Your task to perform on an android device: open app "The Home Depot" (install if not already installed) and go to login screen Image 0: 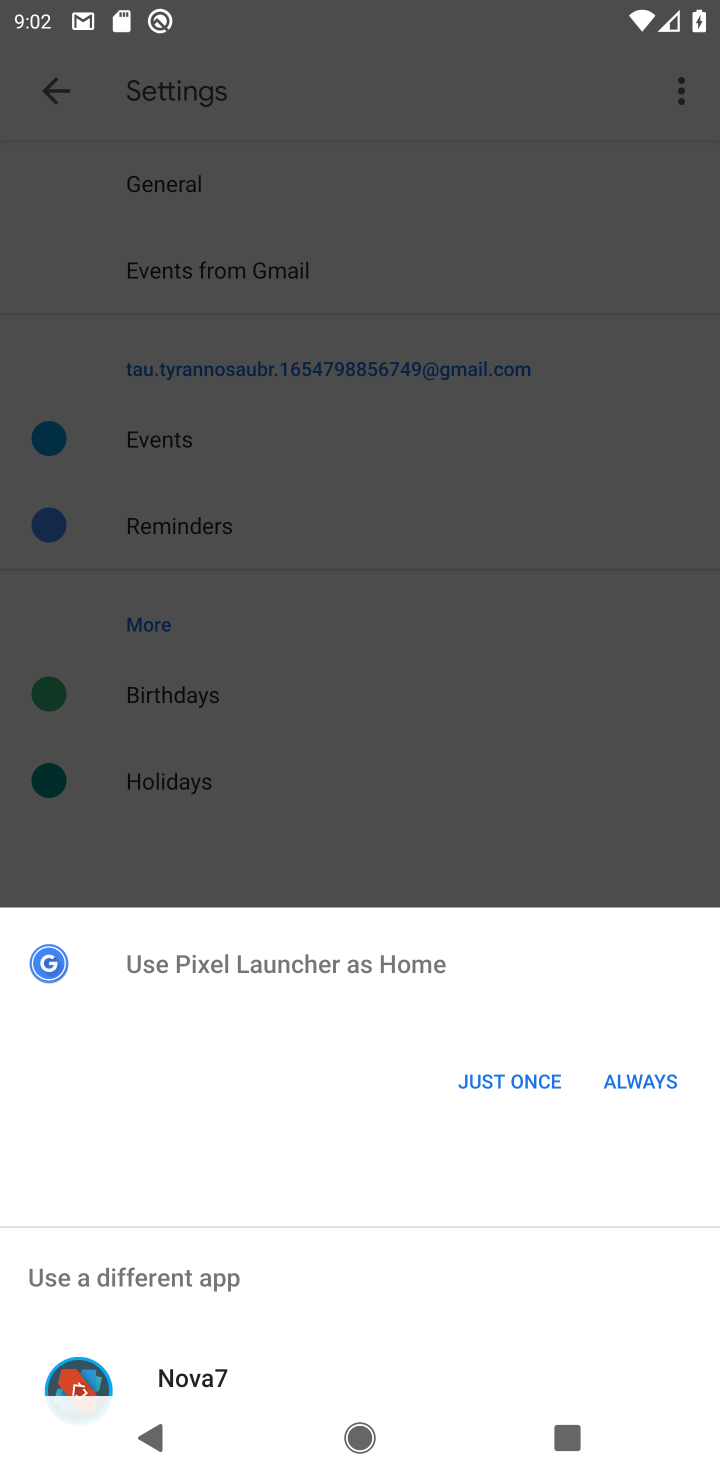
Step 0: press home button
Your task to perform on an android device: open app "The Home Depot" (install if not already installed) and go to login screen Image 1: 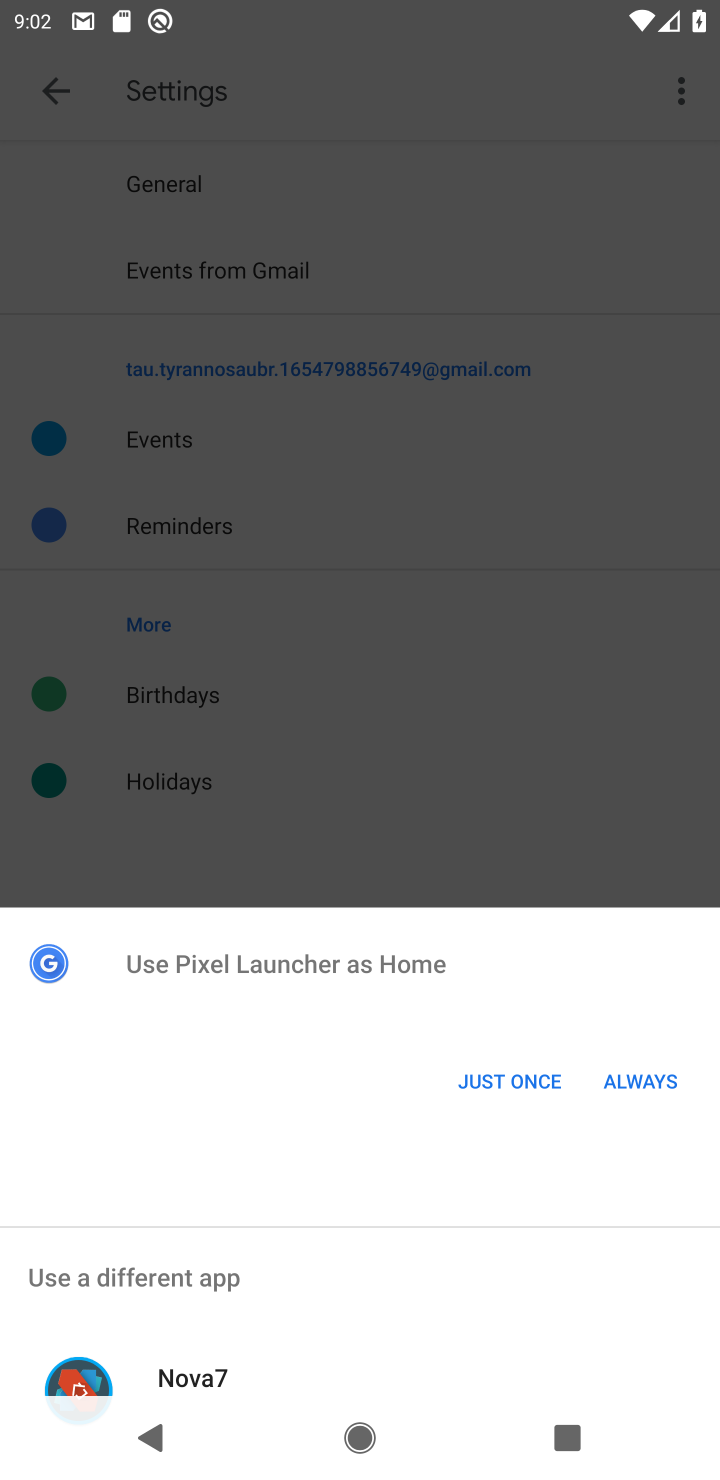
Step 1: press home button
Your task to perform on an android device: open app "The Home Depot" (install if not already installed) and go to login screen Image 2: 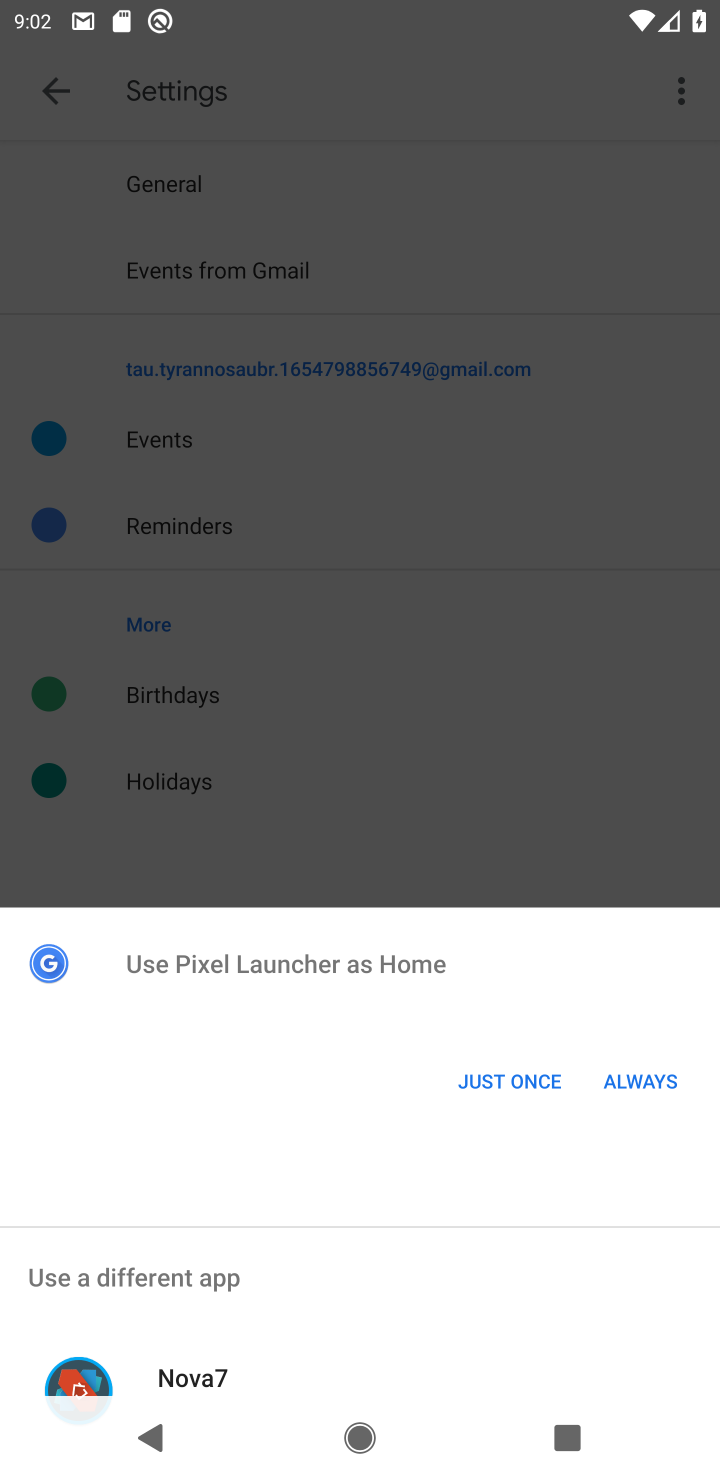
Step 2: press back button
Your task to perform on an android device: open app "The Home Depot" (install if not already installed) and go to login screen Image 3: 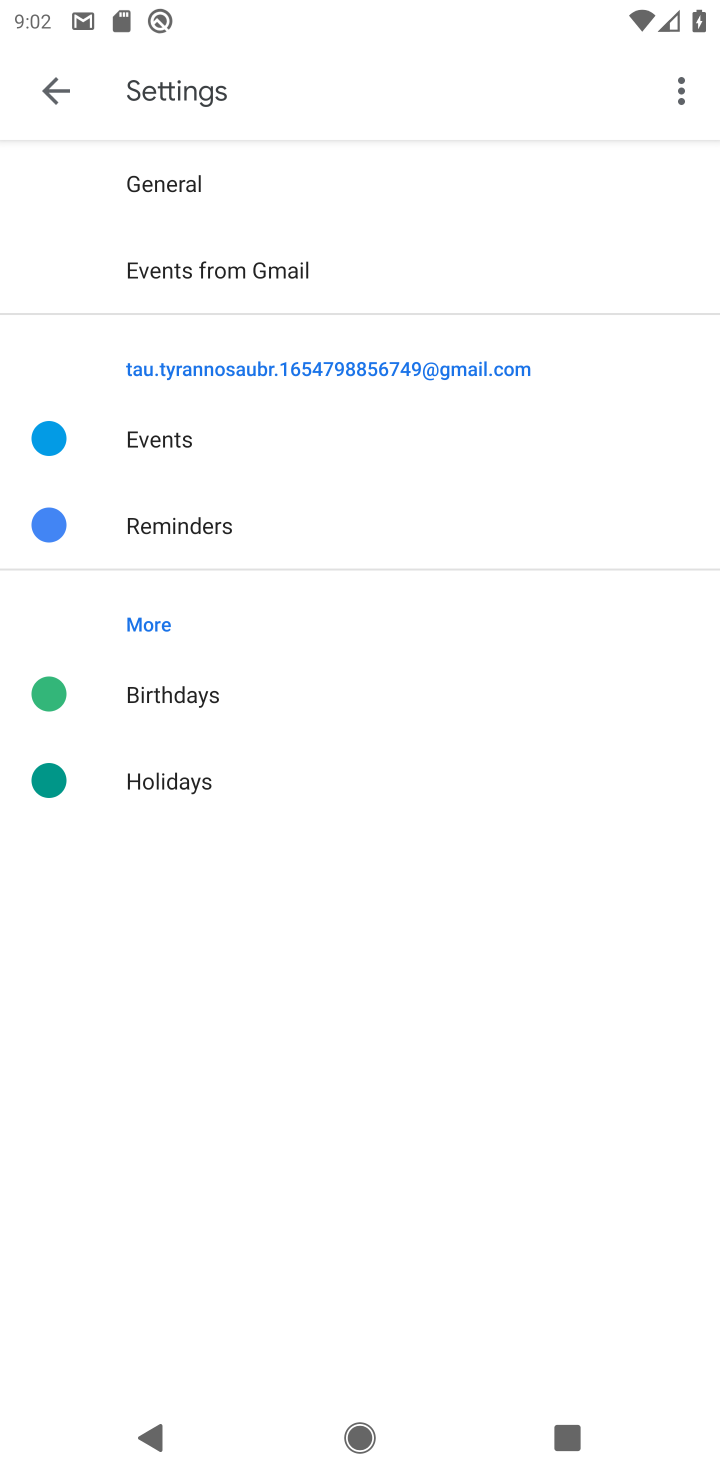
Step 3: press back button
Your task to perform on an android device: open app "The Home Depot" (install if not already installed) and go to login screen Image 4: 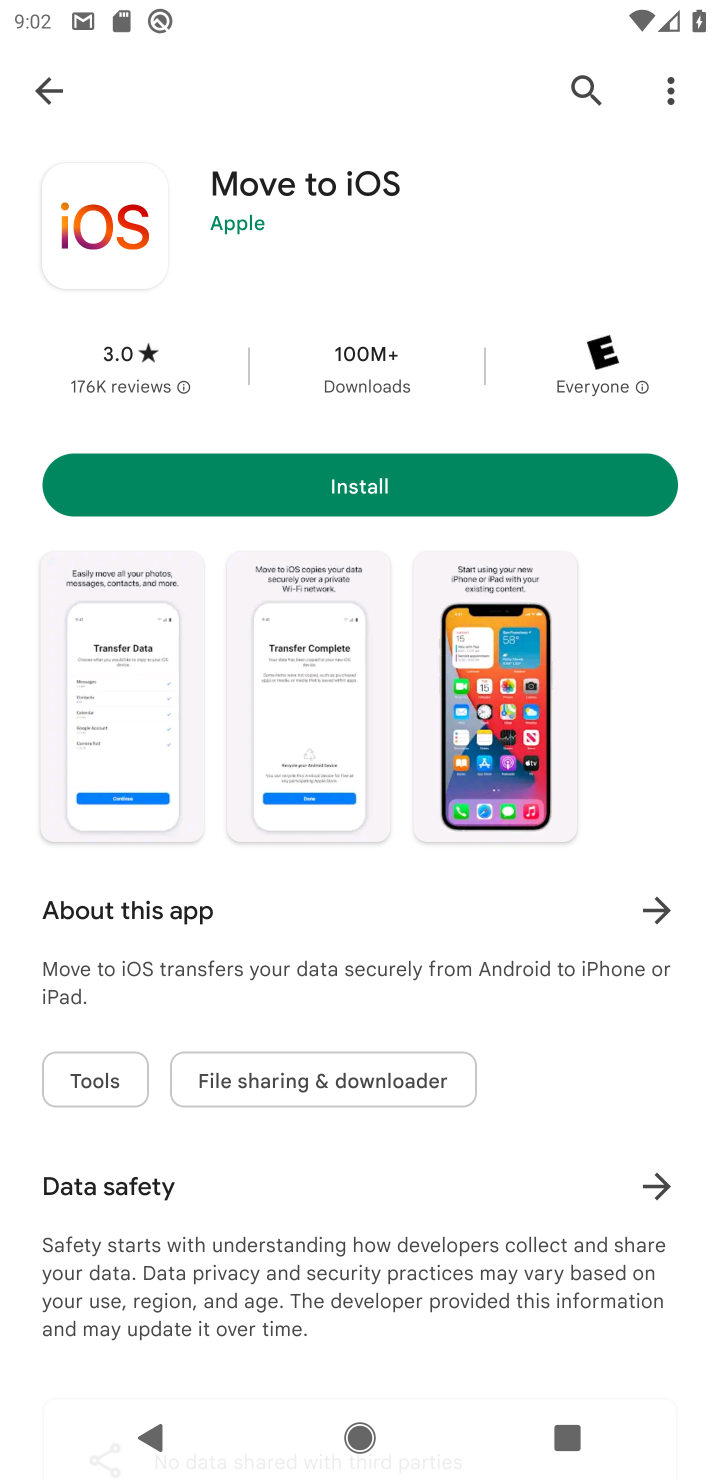
Step 4: click (582, 70)
Your task to perform on an android device: open app "The Home Depot" (install if not already installed) and go to login screen Image 5: 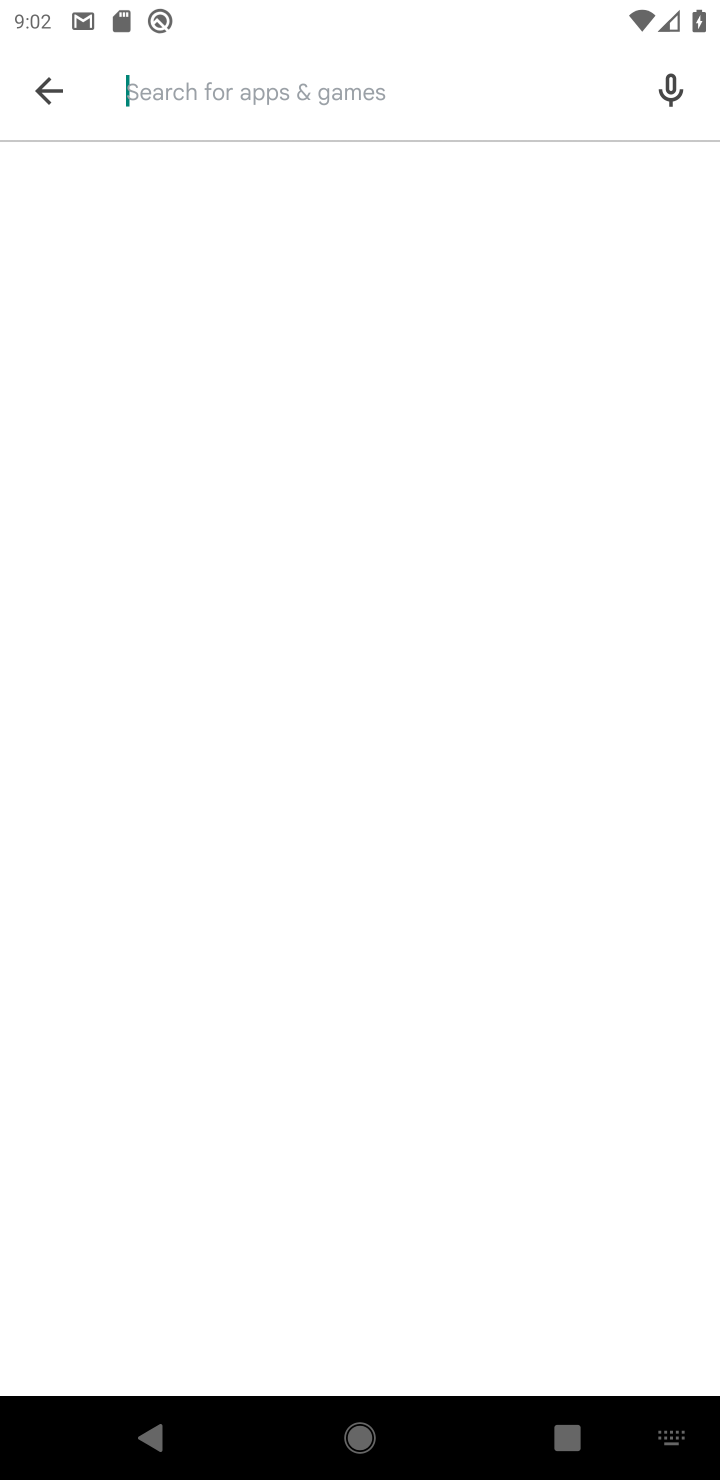
Step 5: type "the home depot"
Your task to perform on an android device: open app "The Home Depot" (install if not already installed) and go to login screen Image 6: 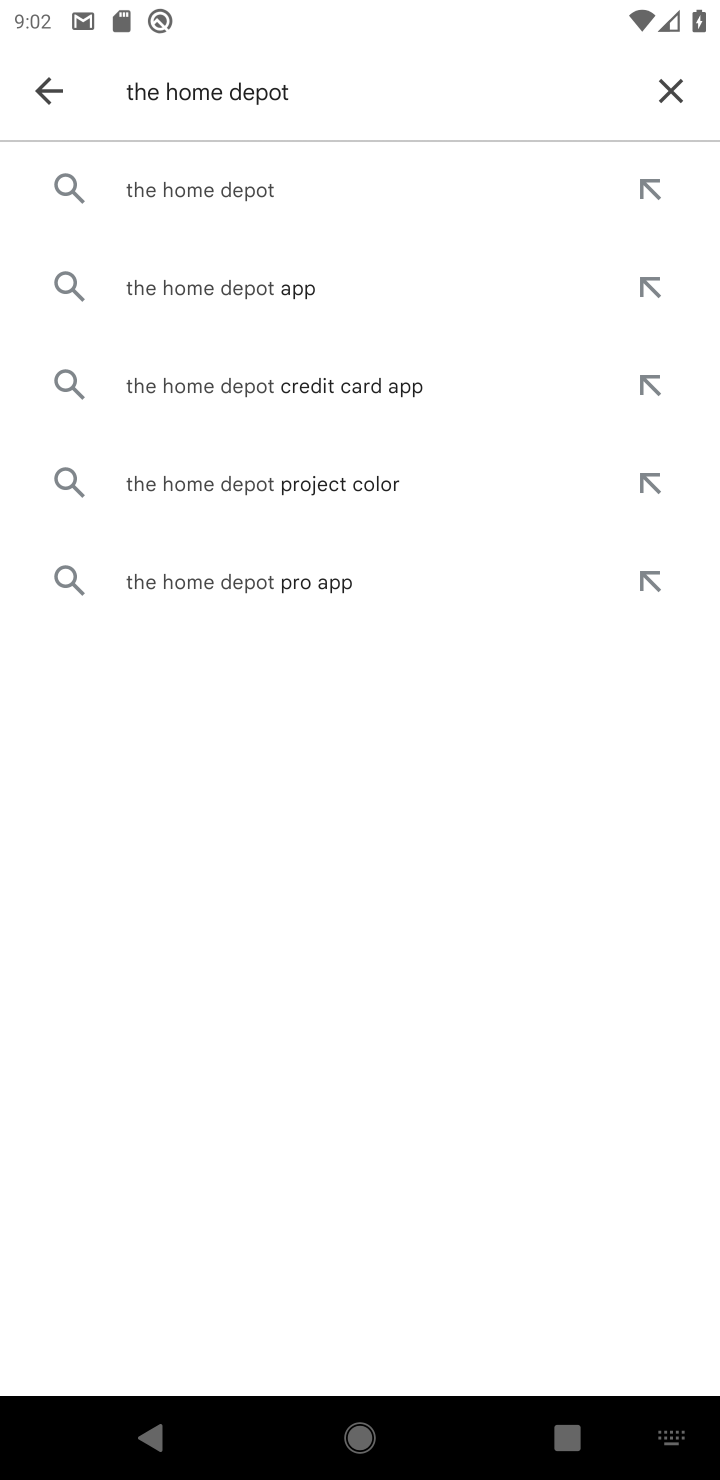
Step 6: click (228, 186)
Your task to perform on an android device: open app "The Home Depot" (install if not already installed) and go to login screen Image 7: 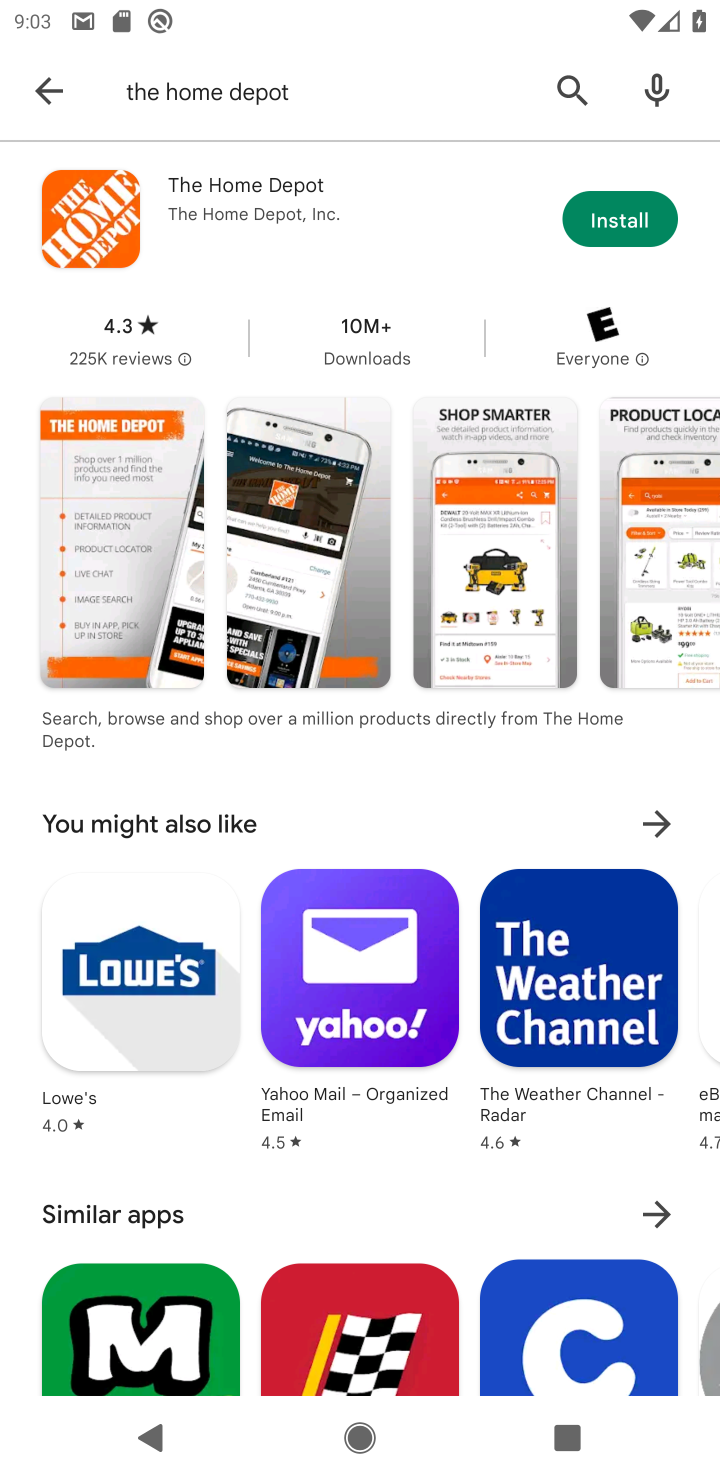
Step 7: click (625, 222)
Your task to perform on an android device: open app "The Home Depot" (install if not already installed) and go to login screen Image 8: 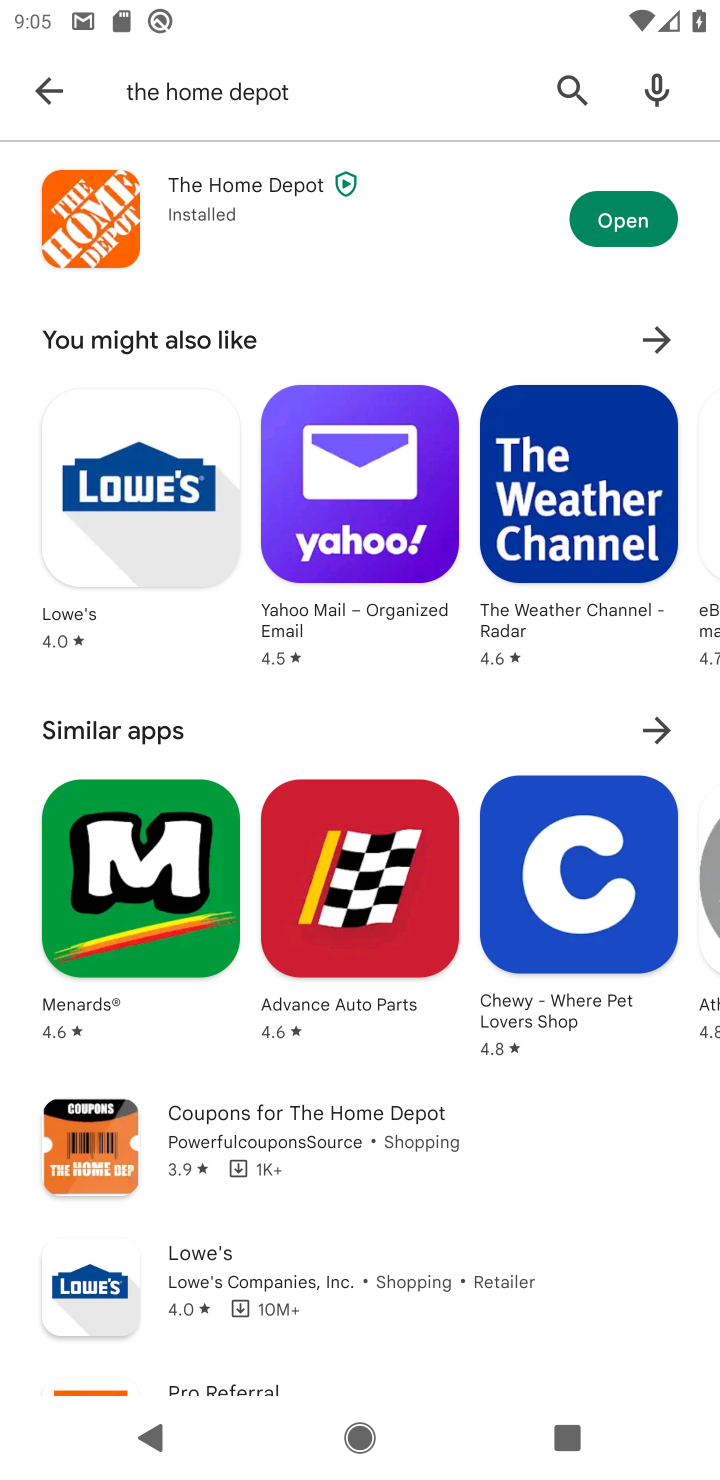
Step 8: click (653, 191)
Your task to perform on an android device: open app "The Home Depot" (install if not already installed) and go to login screen Image 9: 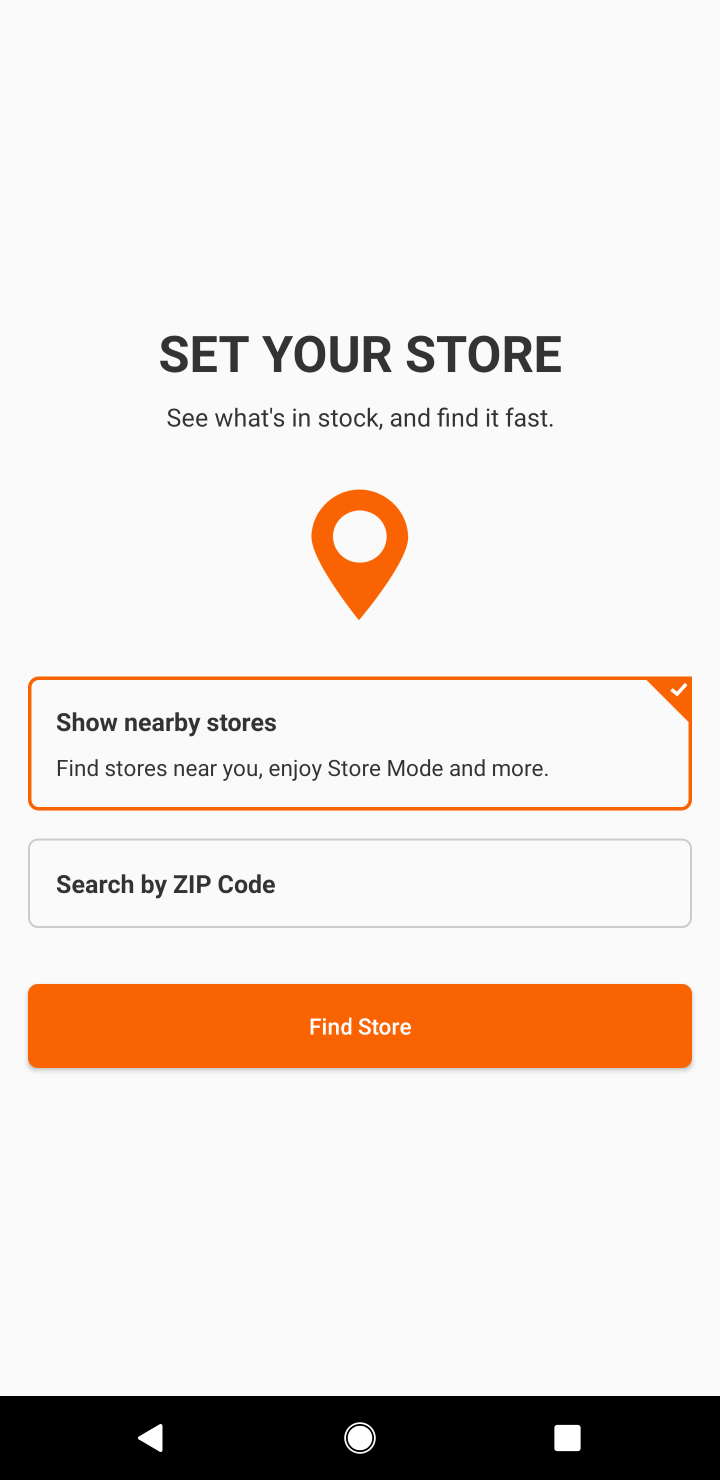
Step 9: task complete